Your task to perform on an android device: turn smart compose on in the gmail app Image 0: 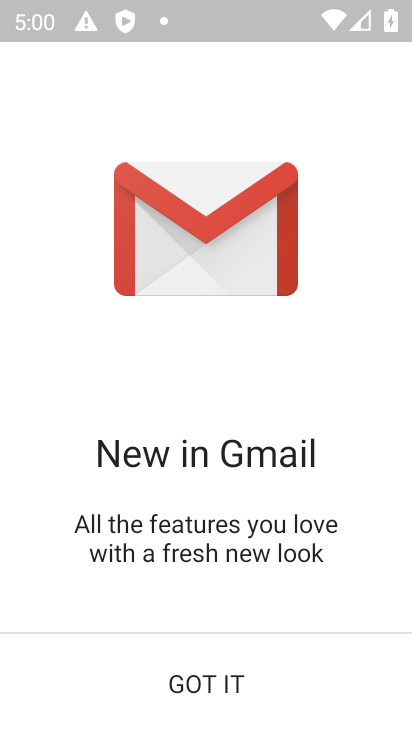
Step 0: click (230, 680)
Your task to perform on an android device: turn smart compose on in the gmail app Image 1: 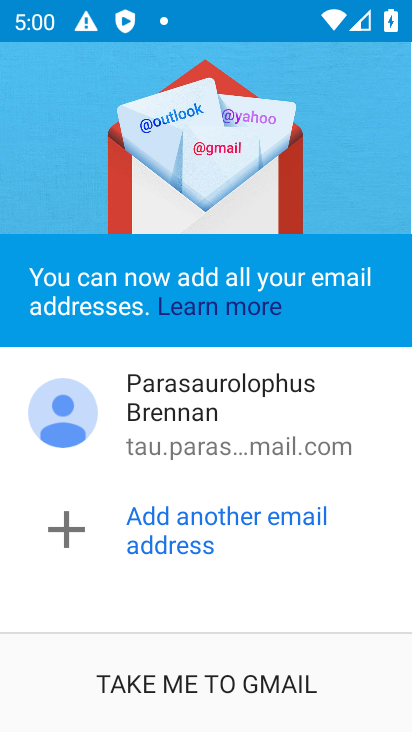
Step 1: click (230, 680)
Your task to perform on an android device: turn smart compose on in the gmail app Image 2: 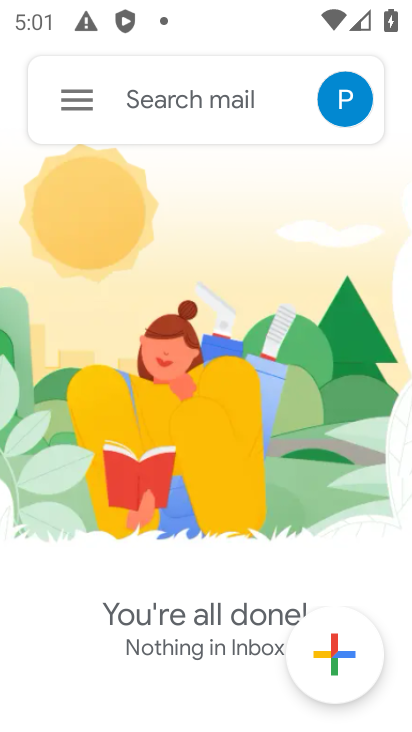
Step 2: click (77, 99)
Your task to perform on an android device: turn smart compose on in the gmail app Image 3: 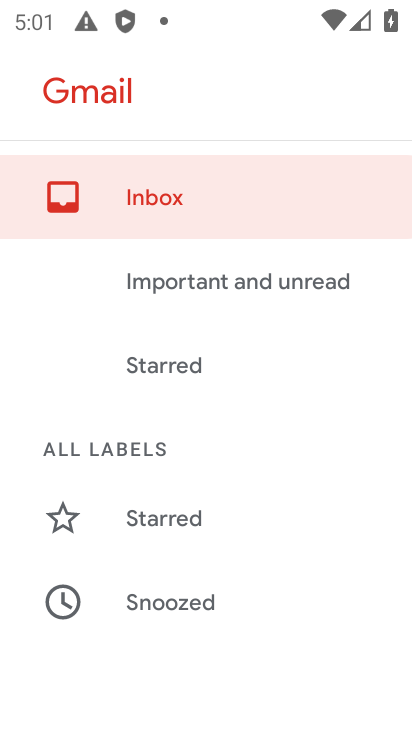
Step 3: drag from (161, 633) to (263, 42)
Your task to perform on an android device: turn smart compose on in the gmail app Image 4: 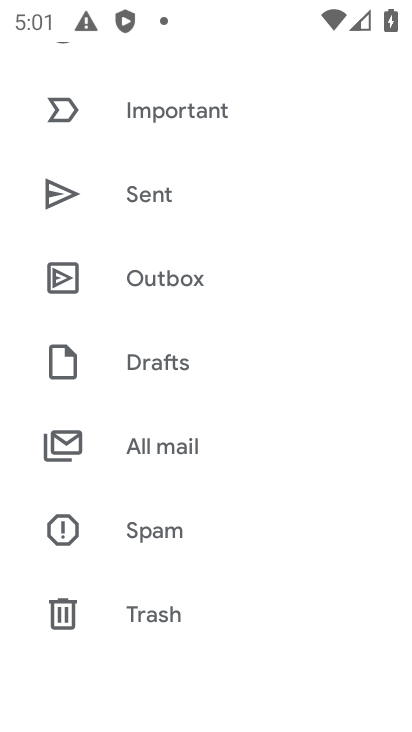
Step 4: click (248, 26)
Your task to perform on an android device: turn smart compose on in the gmail app Image 5: 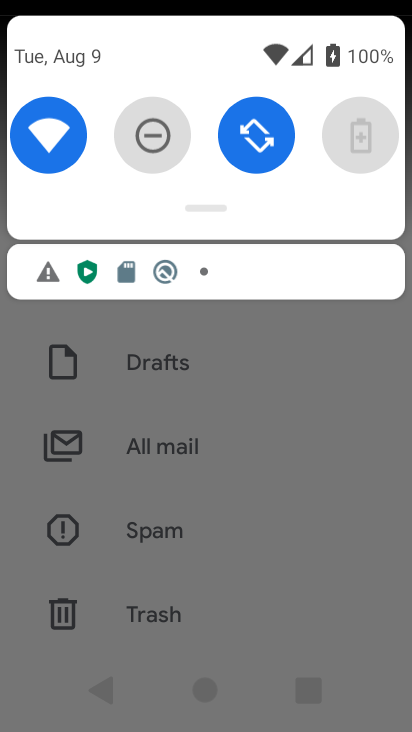
Step 5: drag from (233, 605) to (254, 82)
Your task to perform on an android device: turn smart compose on in the gmail app Image 6: 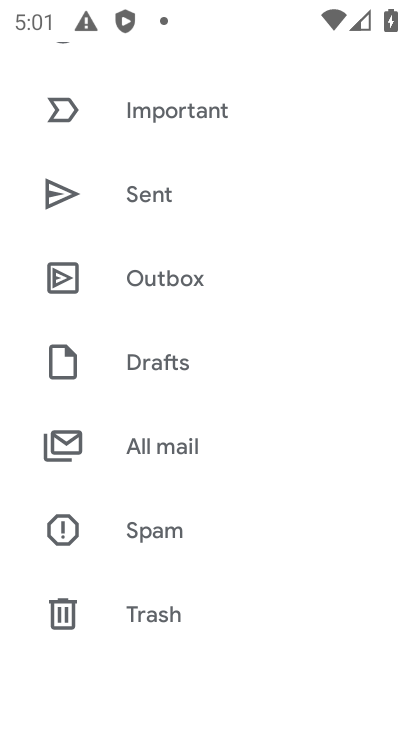
Step 6: drag from (226, 618) to (270, 143)
Your task to perform on an android device: turn smart compose on in the gmail app Image 7: 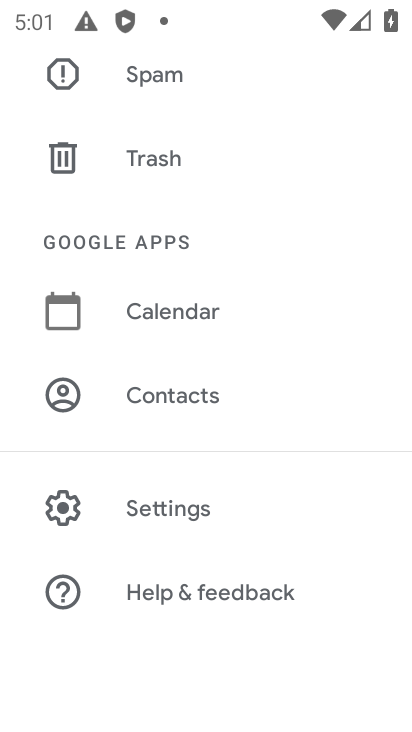
Step 7: click (181, 506)
Your task to perform on an android device: turn smart compose on in the gmail app Image 8: 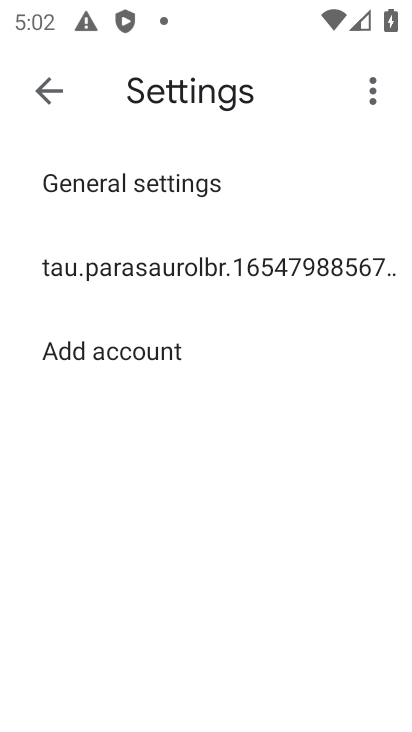
Step 8: click (234, 284)
Your task to perform on an android device: turn smart compose on in the gmail app Image 9: 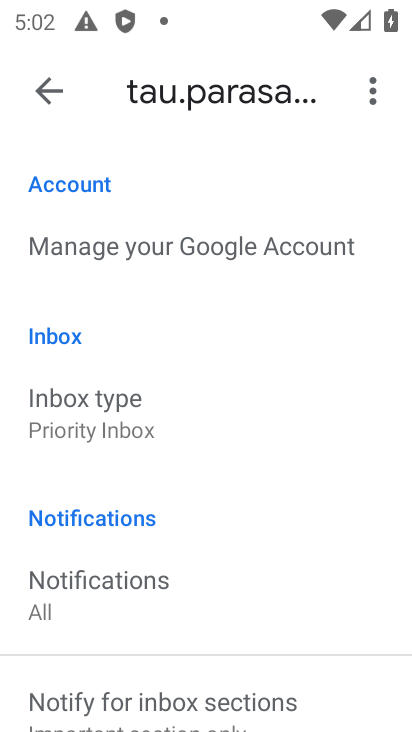
Step 9: task complete